Your task to perform on an android device: show emergency info Image 0: 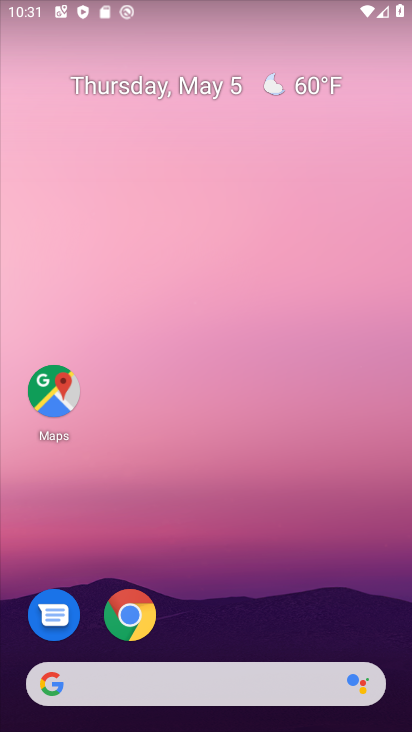
Step 0: drag from (260, 613) to (298, 37)
Your task to perform on an android device: show emergency info Image 1: 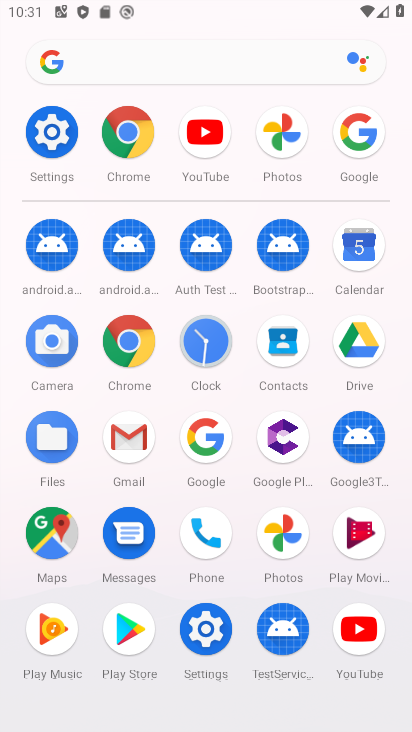
Step 1: click (207, 629)
Your task to perform on an android device: show emergency info Image 2: 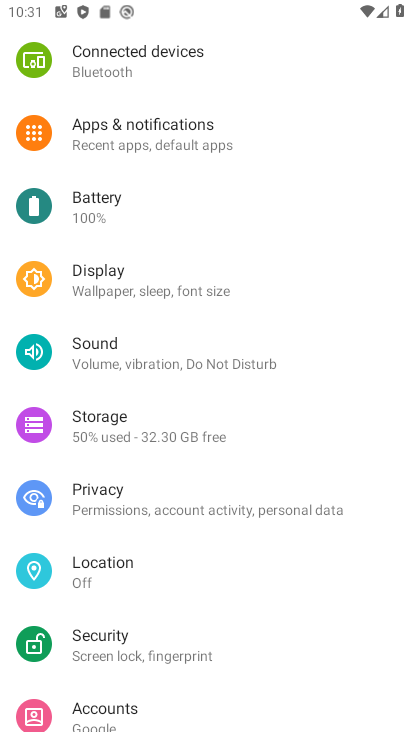
Step 2: drag from (213, 601) to (295, 3)
Your task to perform on an android device: show emergency info Image 3: 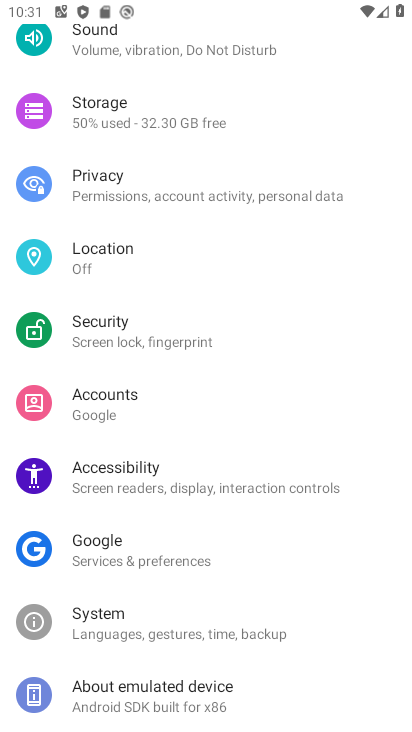
Step 3: click (157, 700)
Your task to perform on an android device: show emergency info Image 4: 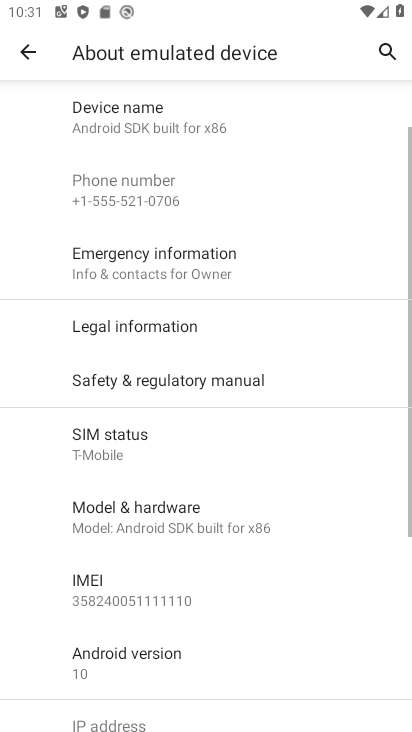
Step 4: drag from (186, 595) to (194, 442)
Your task to perform on an android device: show emergency info Image 5: 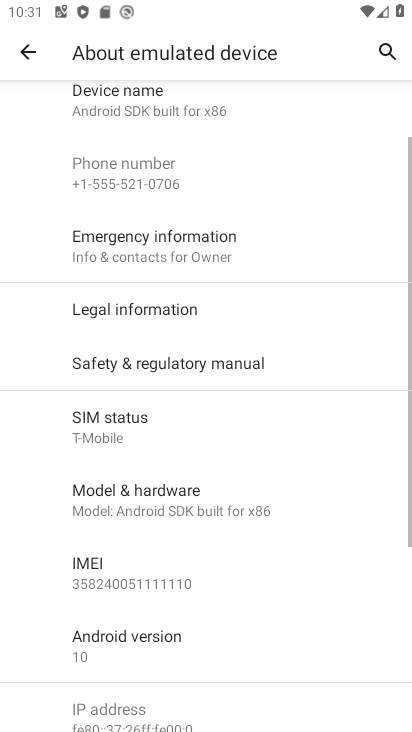
Step 5: click (194, 247)
Your task to perform on an android device: show emergency info Image 6: 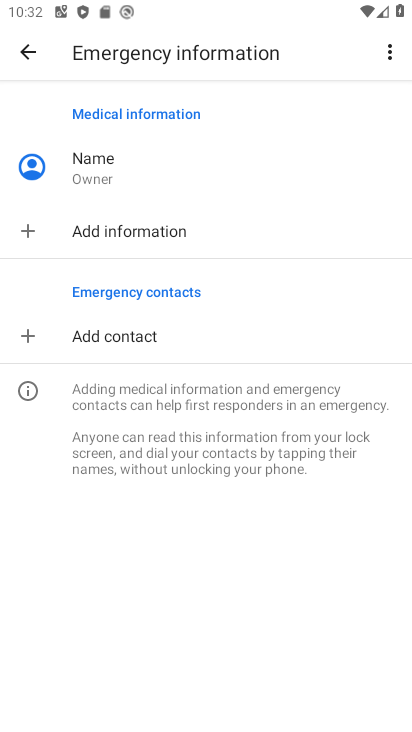
Step 6: task complete